Your task to perform on an android device: Open the phone app and click the voicemail tab. Image 0: 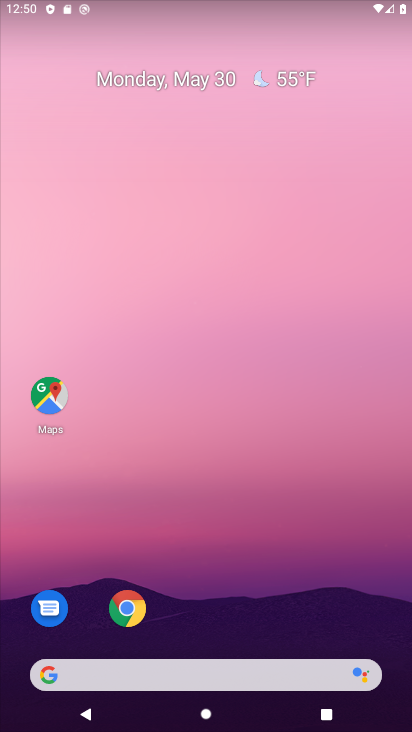
Step 0: drag from (181, 631) to (284, 143)
Your task to perform on an android device: Open the phone app and click the voicemail tab. Image 1: 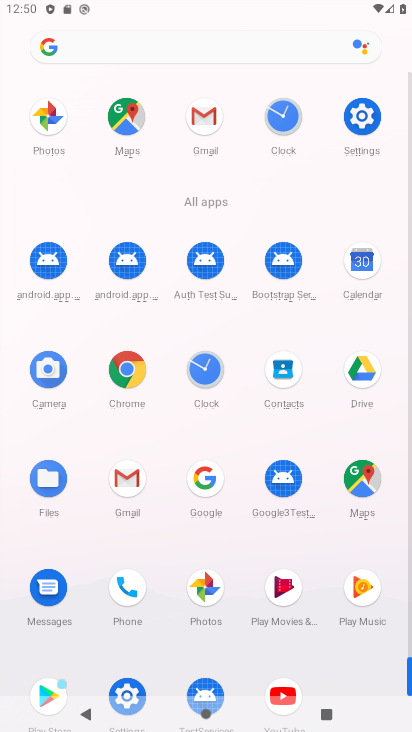
Step 1: click (121, 590)
Your task to perform on an android device: Open the phone app and click the voicemail tab. Image 2: 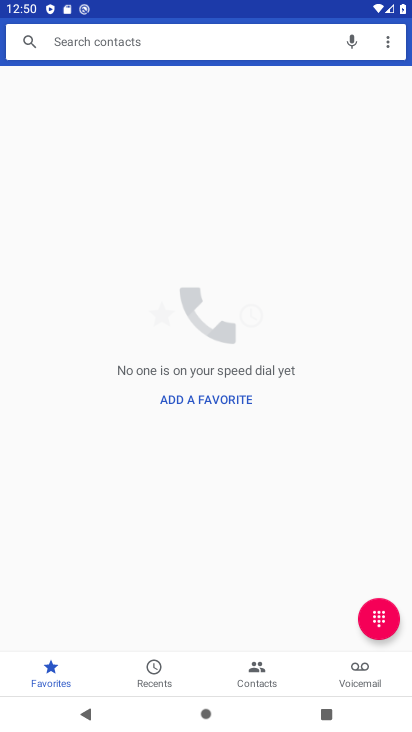
Step 2: click (370, 674)
Your task to perform on an android device: Open the phone app and click the voicemail tab. Image 3: 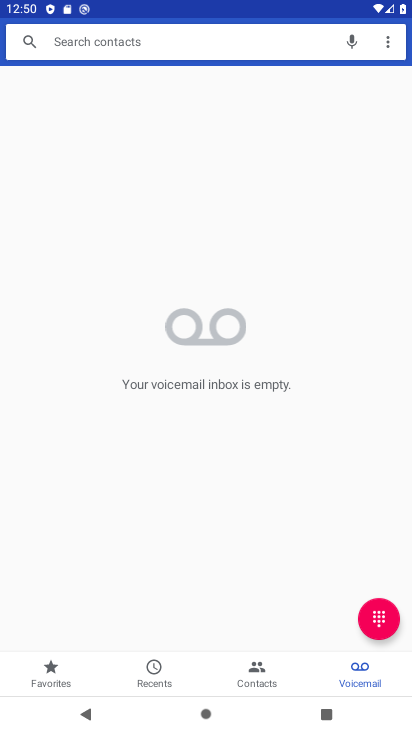
Step 3: task complete